Your task to perform on an android device: check the backup settings in the google photos Image 0: 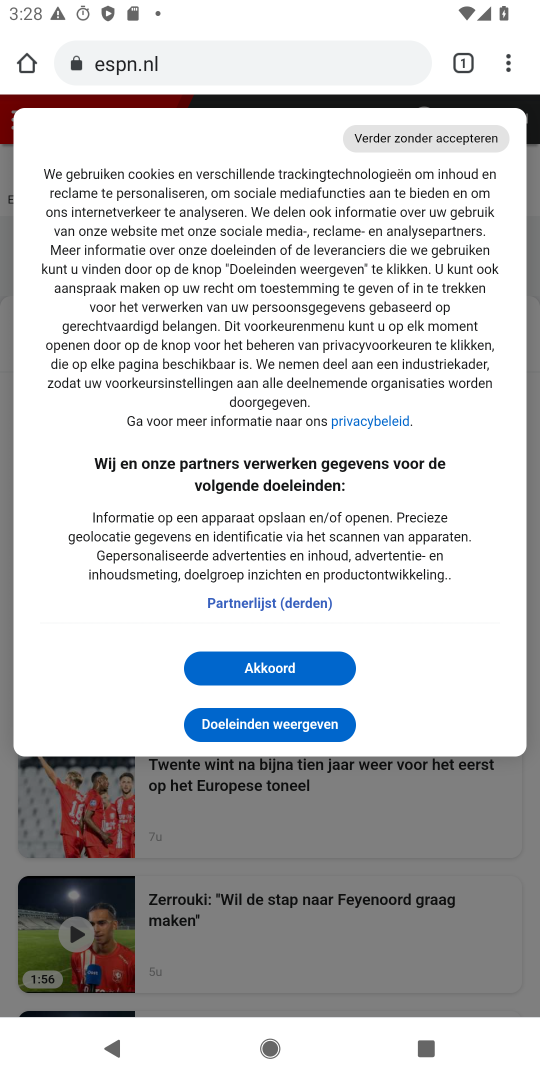
Step 0: press home button
Your task to perform on an android device: check the backup settings in the google photos Image 1: 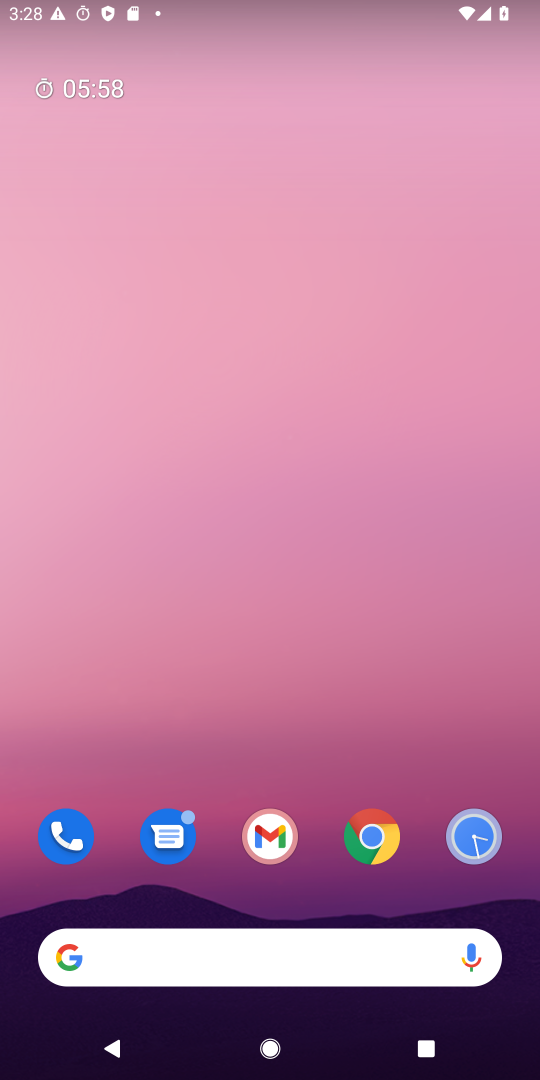
Step 1: drag from (238, 796) to (283, 177)
Your task to perform on an android device: check the backup settings in the google photos Image 2: 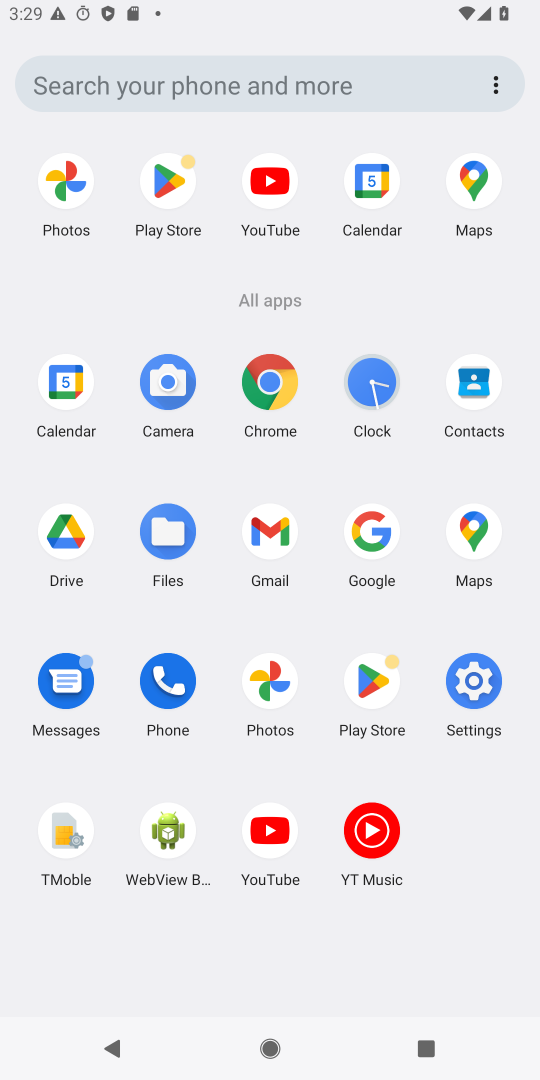
Step 2: click (271, 695)
Your task to perform on an android device: check the backup settings in the google photos Image 3: 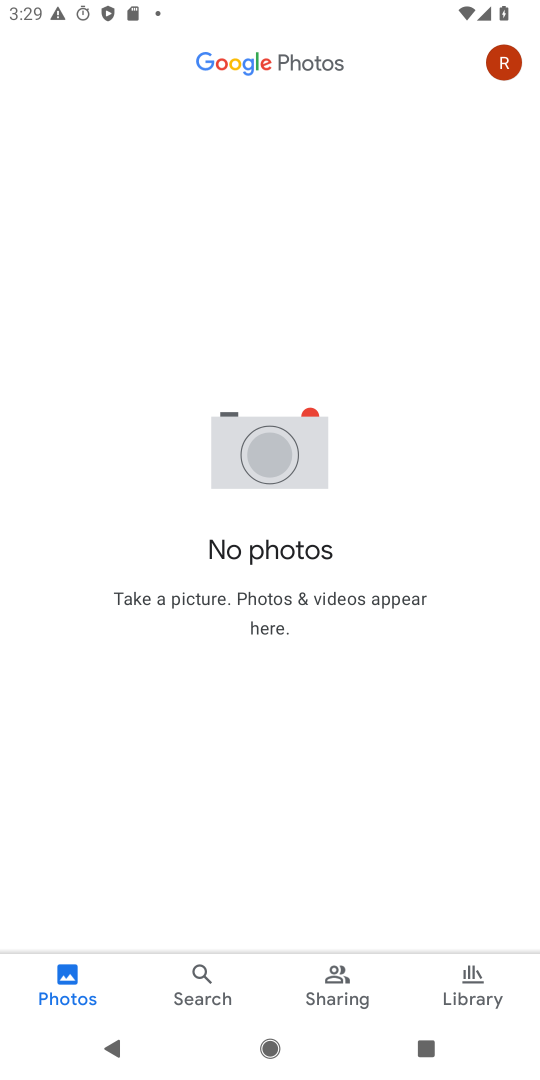
Step 3: click (510, 58)
Your task to perform on an android device: check the backup settings in the google photos Image 4: 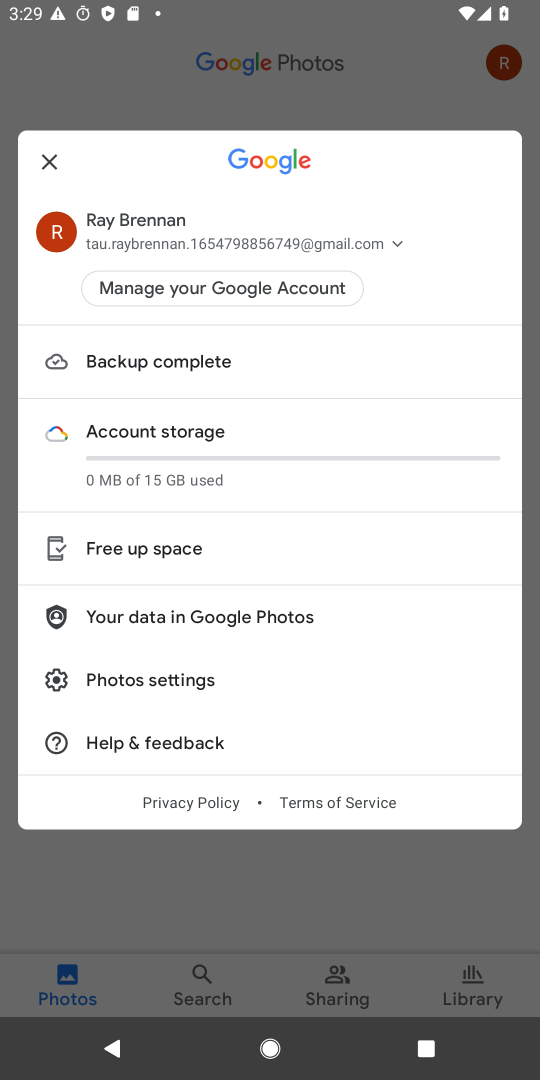
Step 4: click (206, 360)
Your task to perform on an android device: check the backup settings in the google photos Image 5: 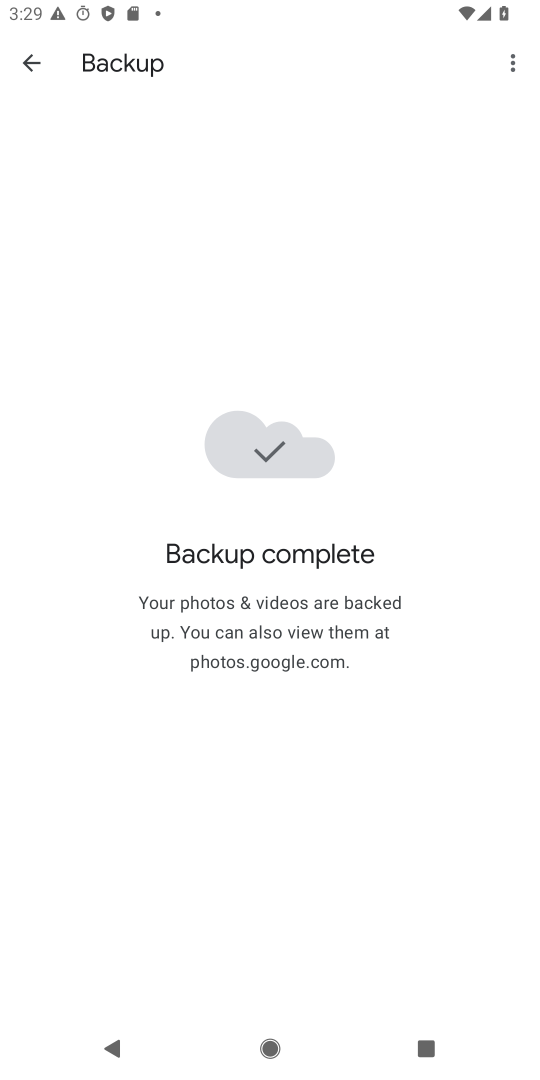
Step 5: drag from (229, 797) to (280, 513)
Your task to perform on an android device: check the backup settings in the google photos Image 6: 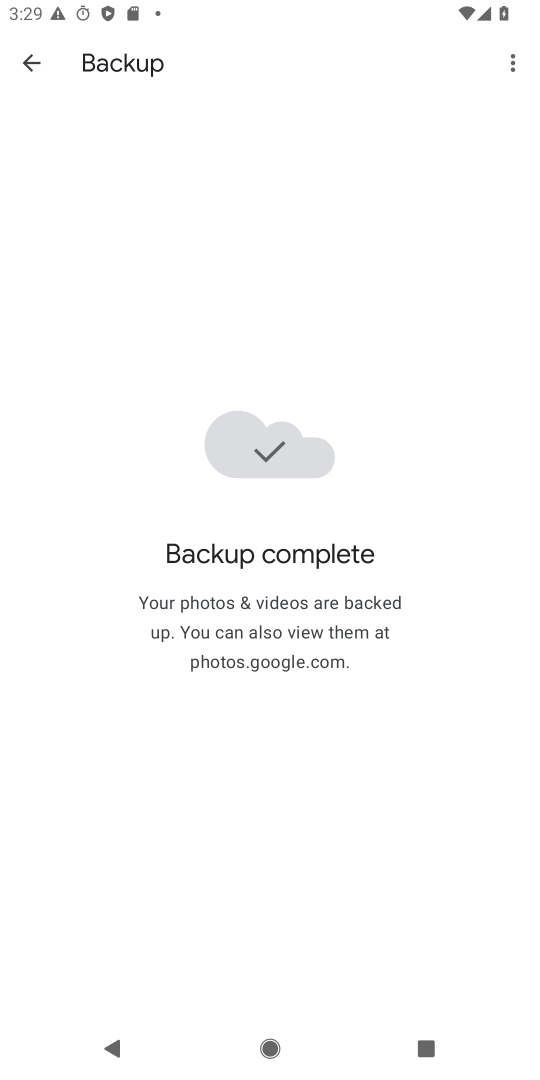
Step 6: click (43, 54)
Your task to perform on an android device: check the backup settings in the google photos Image 7: 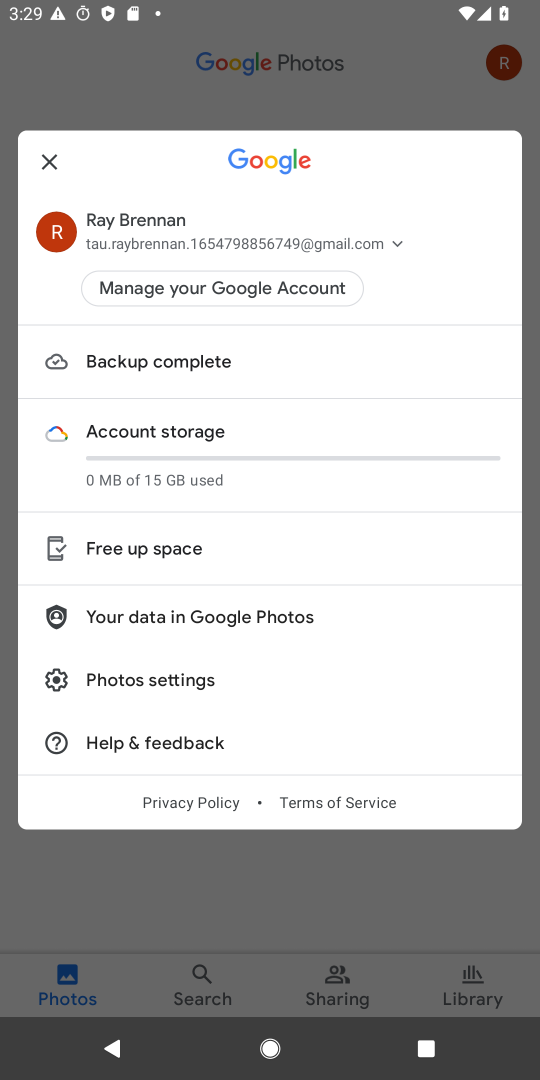
Step 7: drag from (181, 725) to (188, 636)
Your task to perform on an android device: check the backup settings in the google photos Image 8: 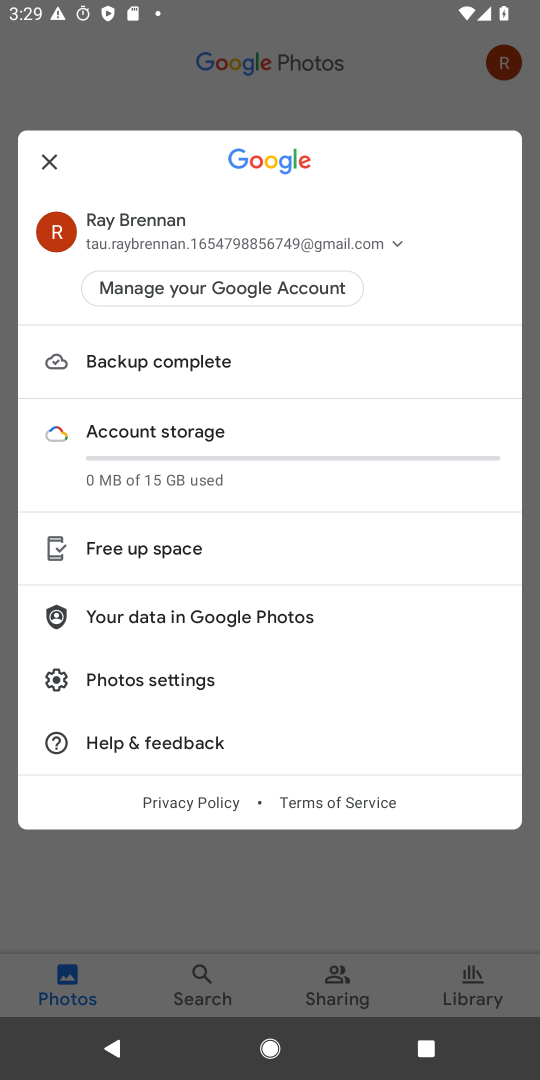
Step 8: click (166, 682)
Your task to perform on an android device: check the backup settings in the google photos Image 9: 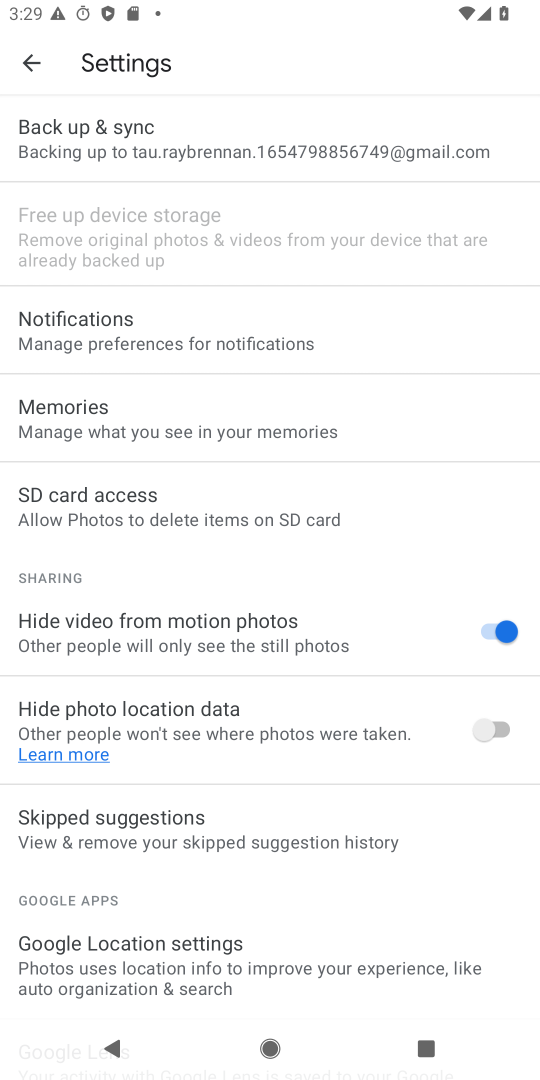
Step 9: click (216, 134)
Your task to perform on an android device: check the backup settings in the google photos Image 10: 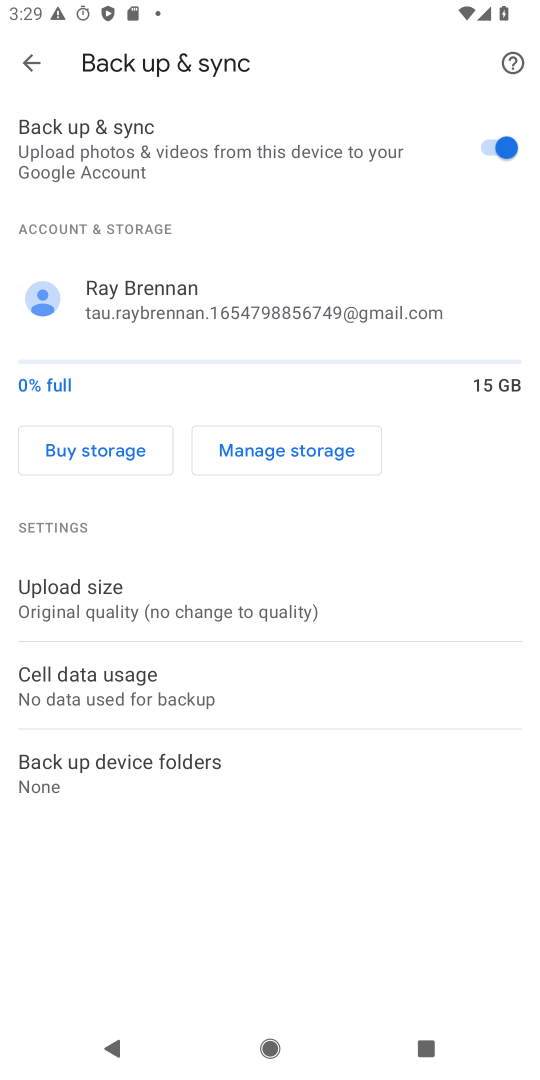
Step 10: task complete